Your task to perform on an android device: turn on showing notifications on the lock screen Image 0: 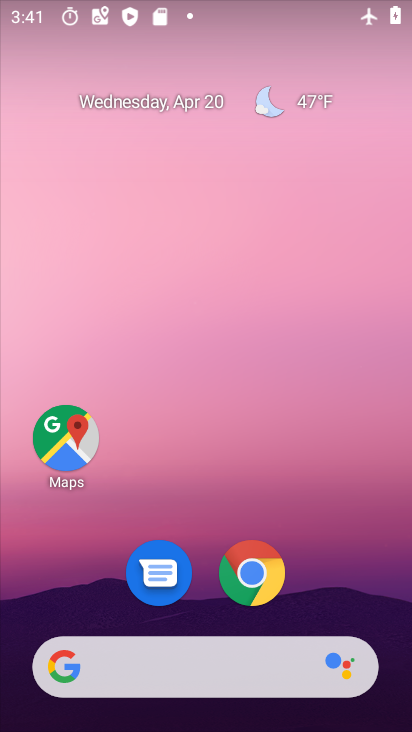
Step 0: drag from (202, 723) to (214, 80)
Your task to perform on an android device: turn on showing notifications on the lock screen Image 1: 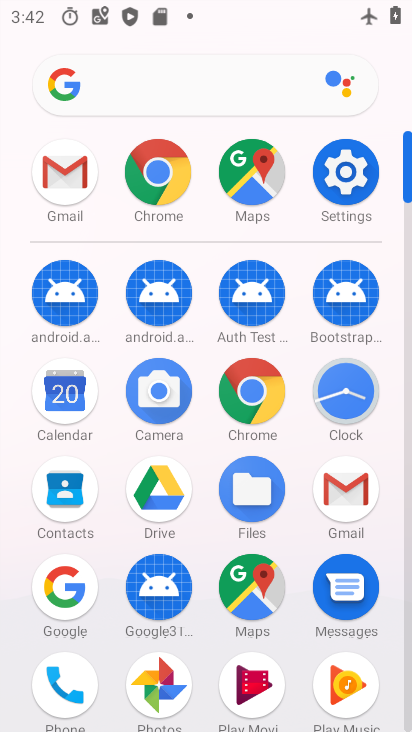
Step 1: click (351, 167)
Your task to perform on an android device: turn on showing notifications on the lock screen Image 2: 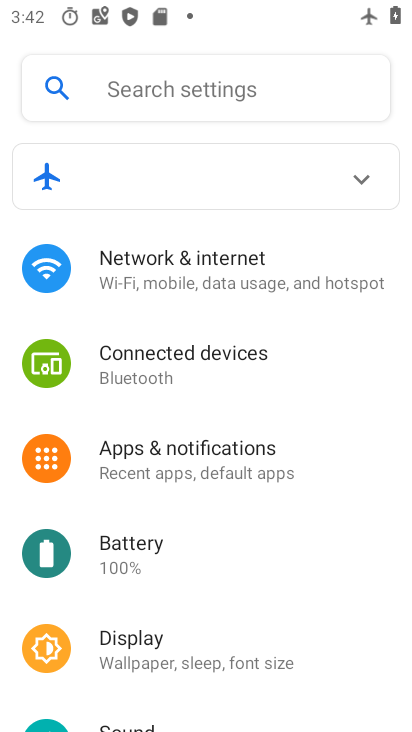
Step 2: click (166, 457)
Your task to perform on an android device: turn on showing notifications on the lock screen Image 3: 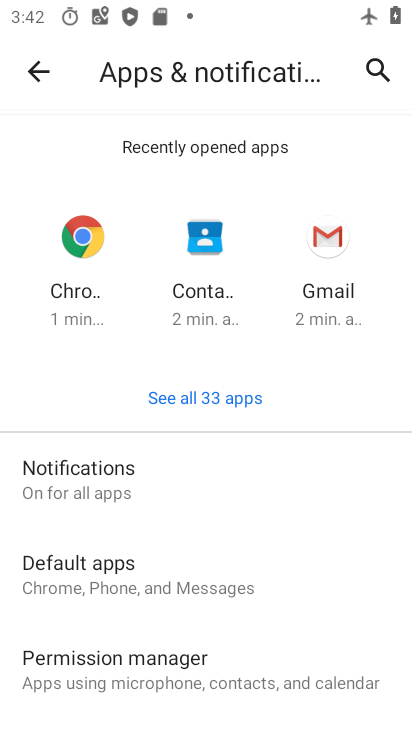
Step 3: click (90, 477)
Your task to perform on an android device: turn on showing notifications on the lock screen Image 4: 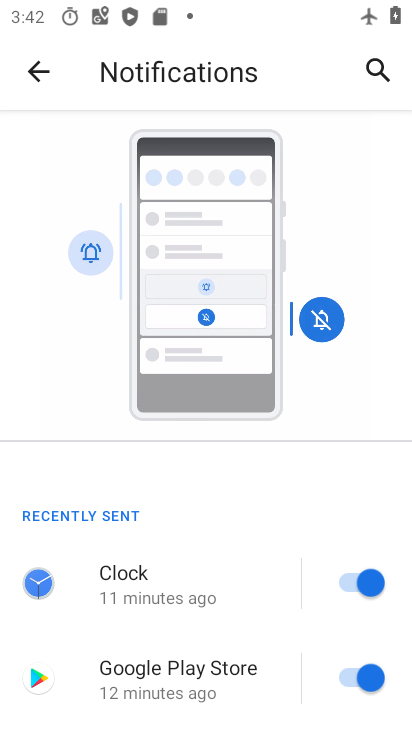
Step 4: drag from (196, 641) to (196, 424)
Your task to perform on an android device: turn on showing notifications on the lock screen Image 5: 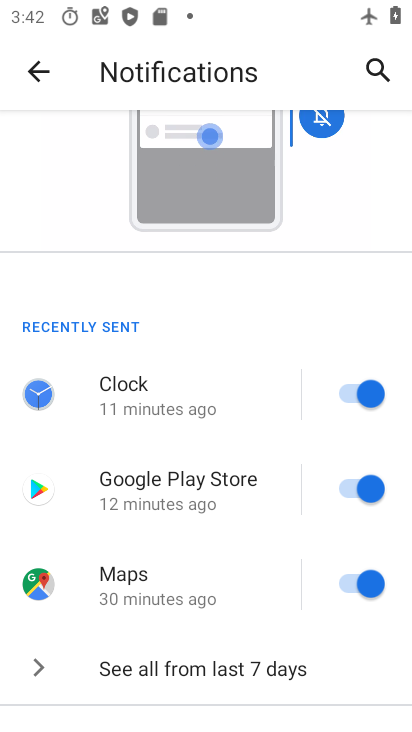
Step 5: drag from (196, 644) to (199, 223)
Your task to perform on an android device: turn on showing notifications on the lock screen Image 6: 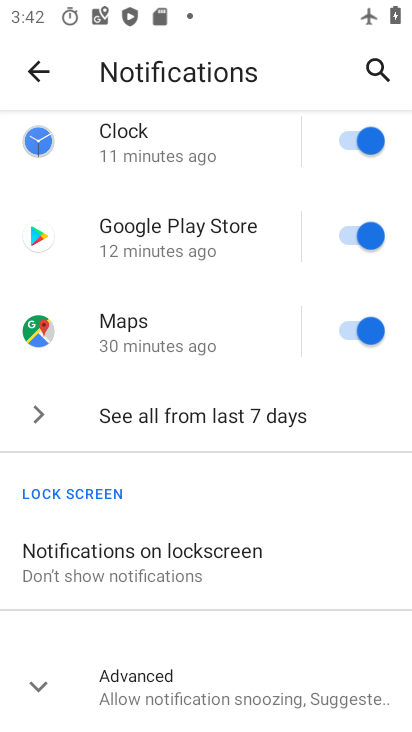
Step 6: click (132, 540)
Your task to perform on an android device: turn on showing notifications on the lock screen Image 7: 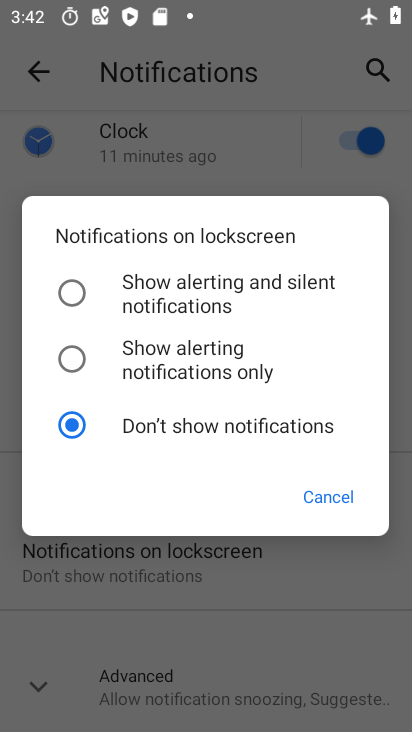
Step 7: click (73, 293)
Your task to perform on an android device: turn on showing notifications on the lock screen Image 8: 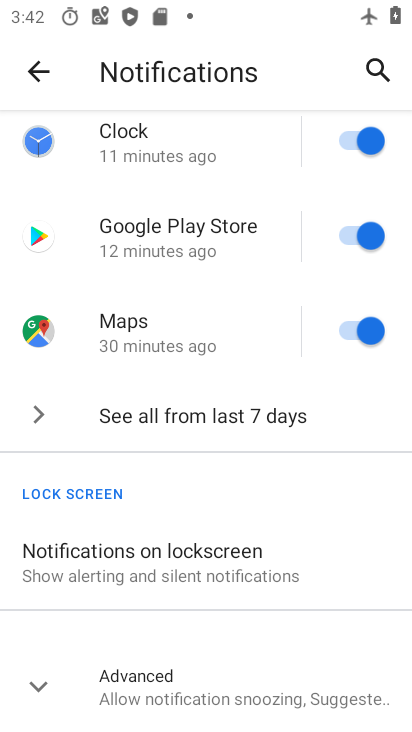
Step 8: task complete